Your task to perform on an android device: Empty the shopping cart on newegg.com. Image 0: 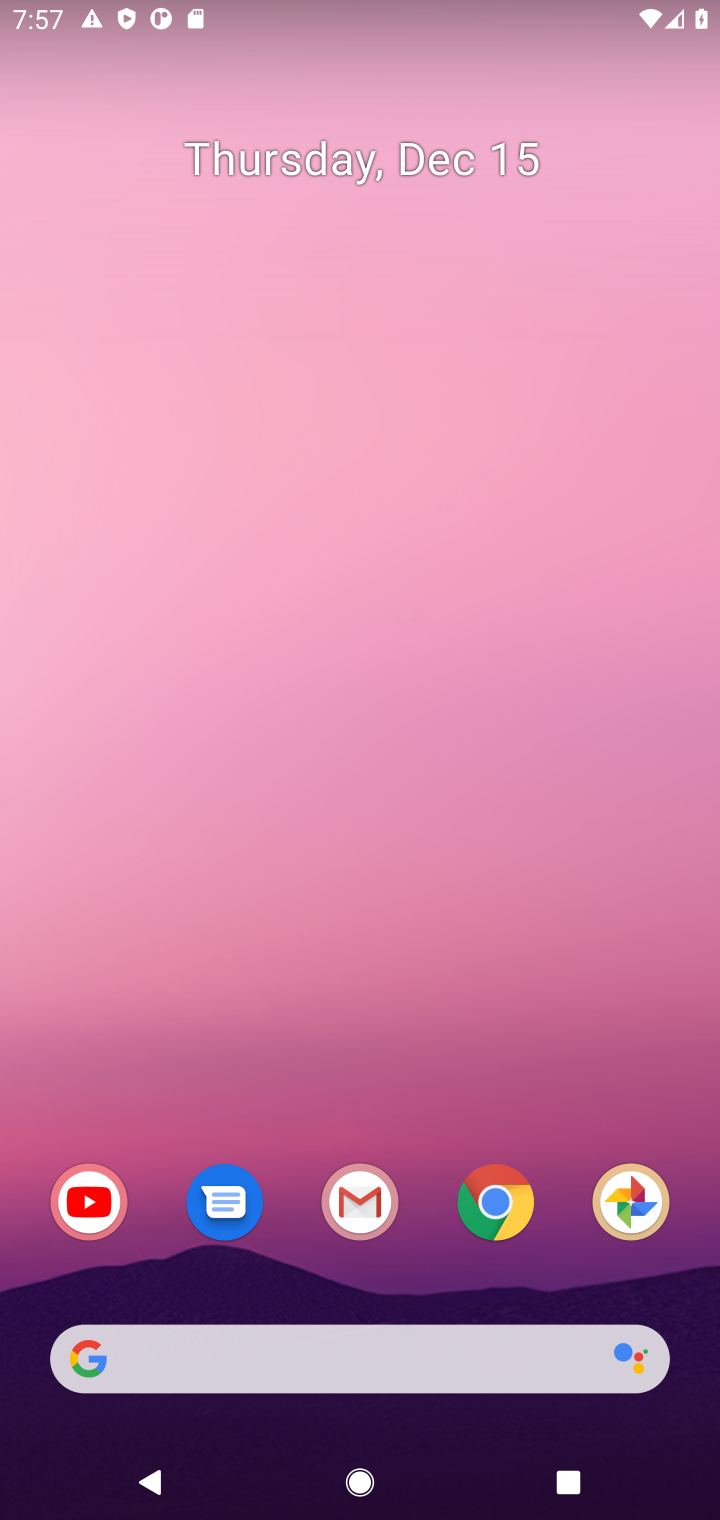
Step 0: click (499, 1202)
Your task to perform on an android device: Empty the shopping cart on newegg.com. Image 1: 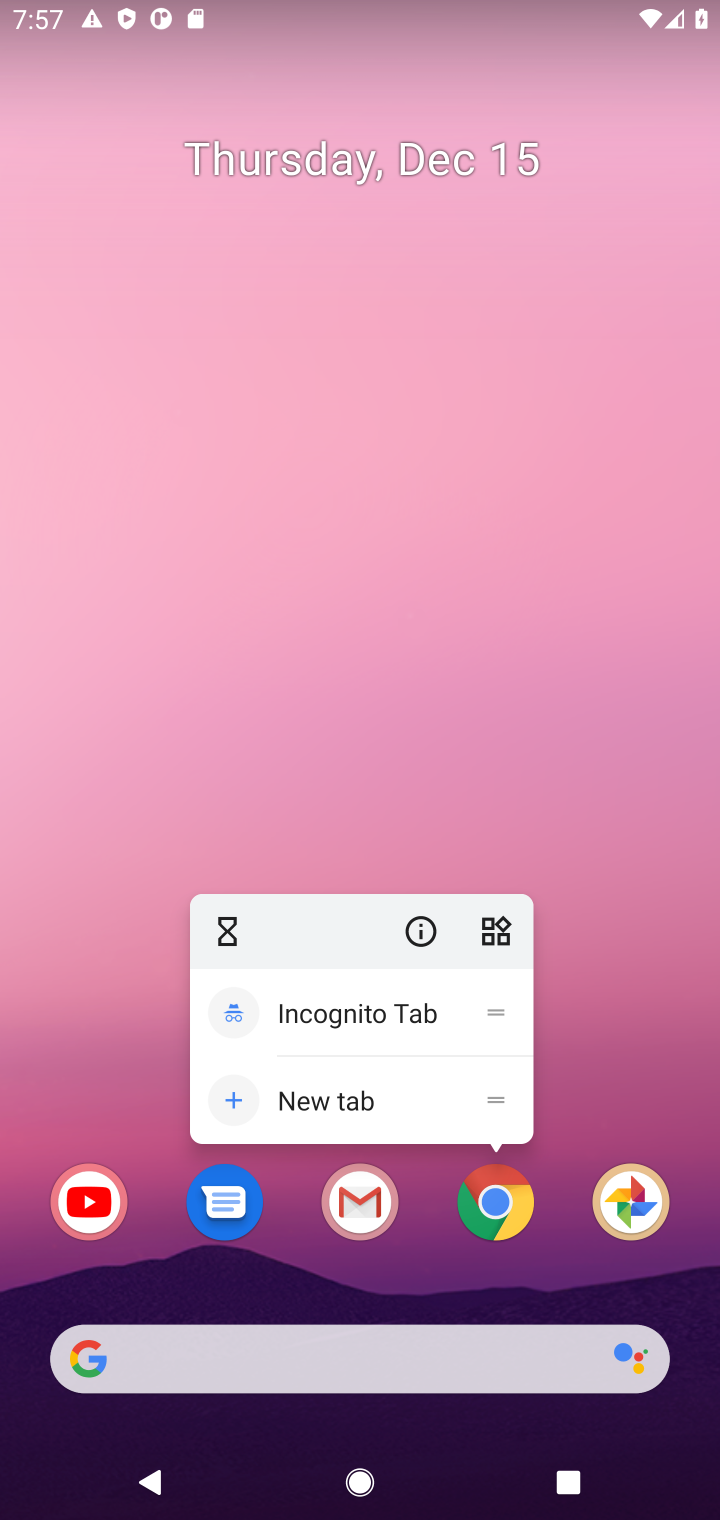
Step 1: click (499, 1202)
Your task to perform on an android device: Empty the shopping cart on newegg.com. Image 2: 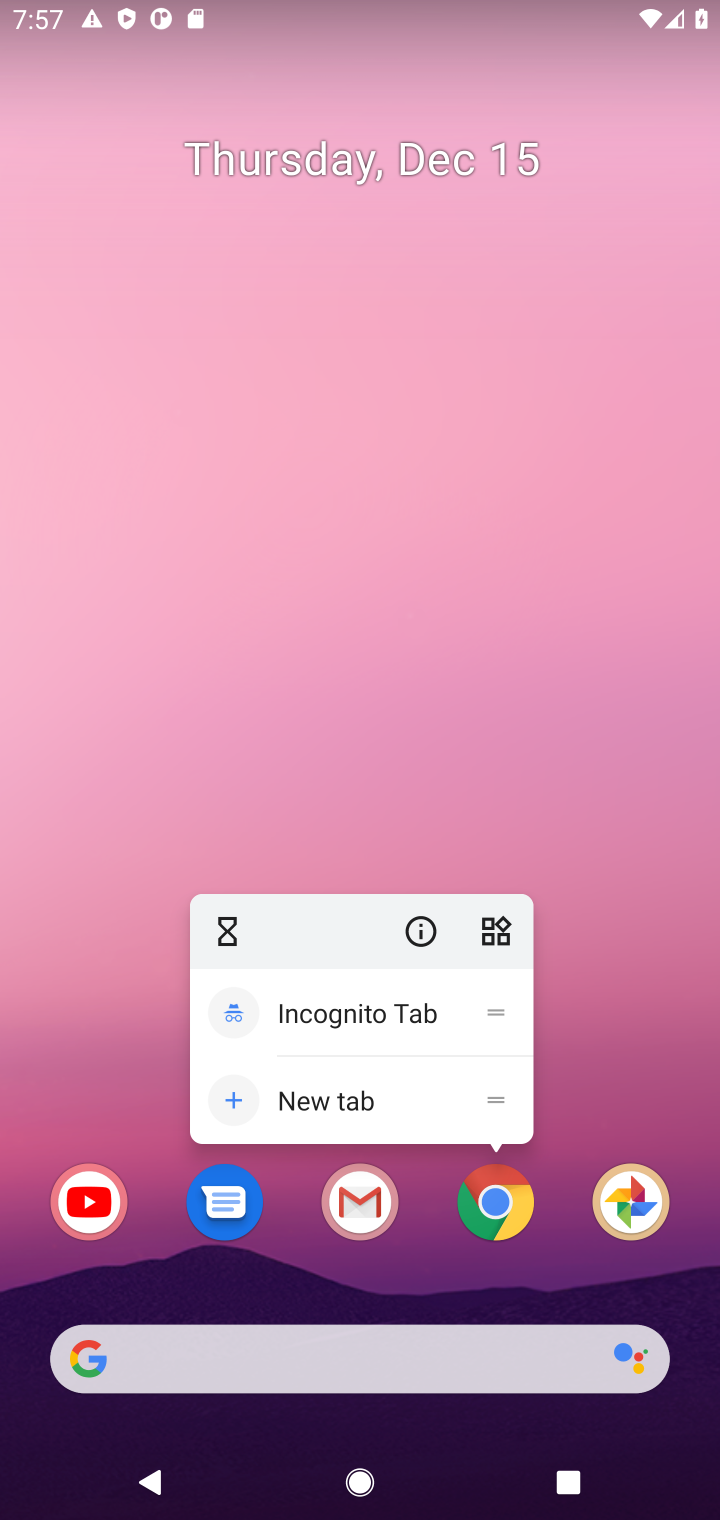
Step 2: click (499, 1202)
Your task to perform on an android device: Empty the shopping cart on newegg.com. Image 3: 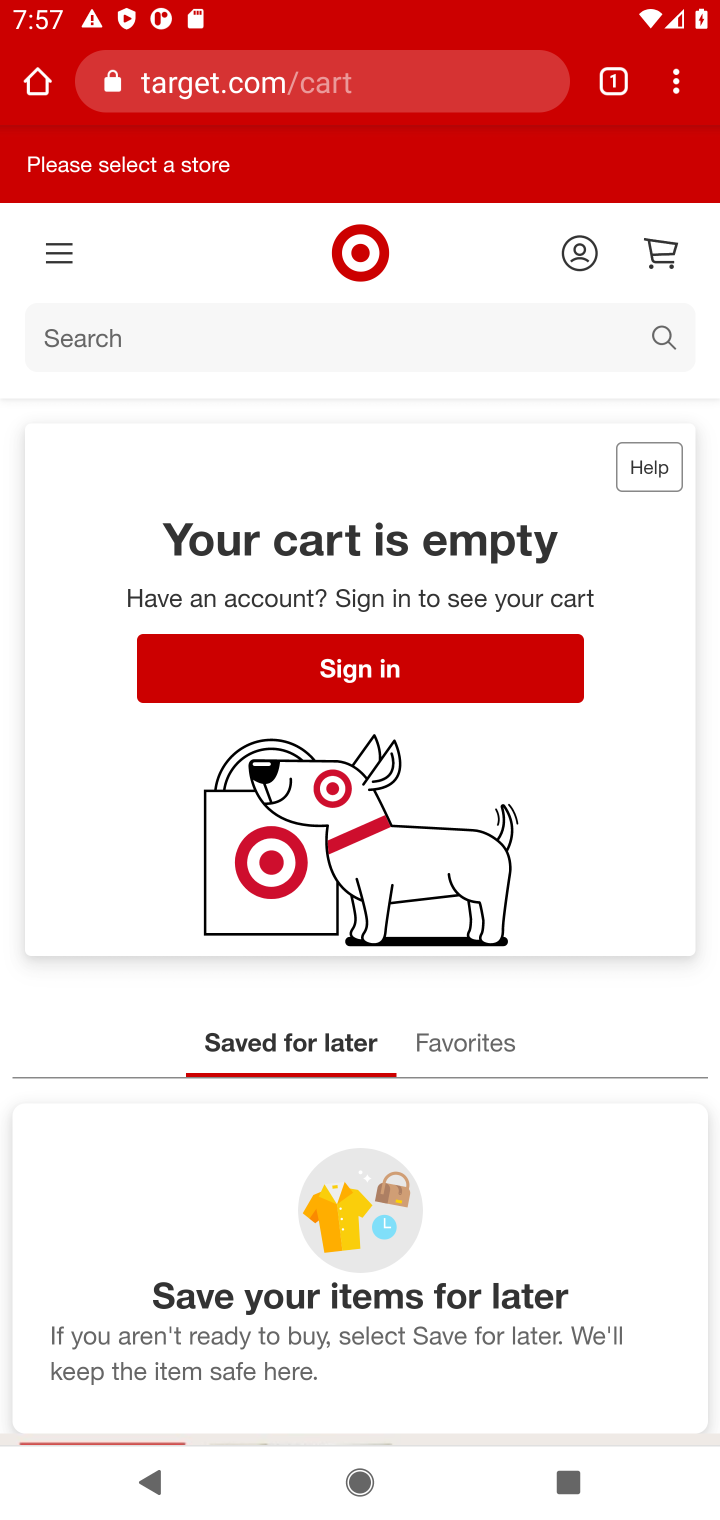
Step 3: click (280, 77)
Your task to perform on an android device: Empty the shopping cart on newegg.com. Image 4: 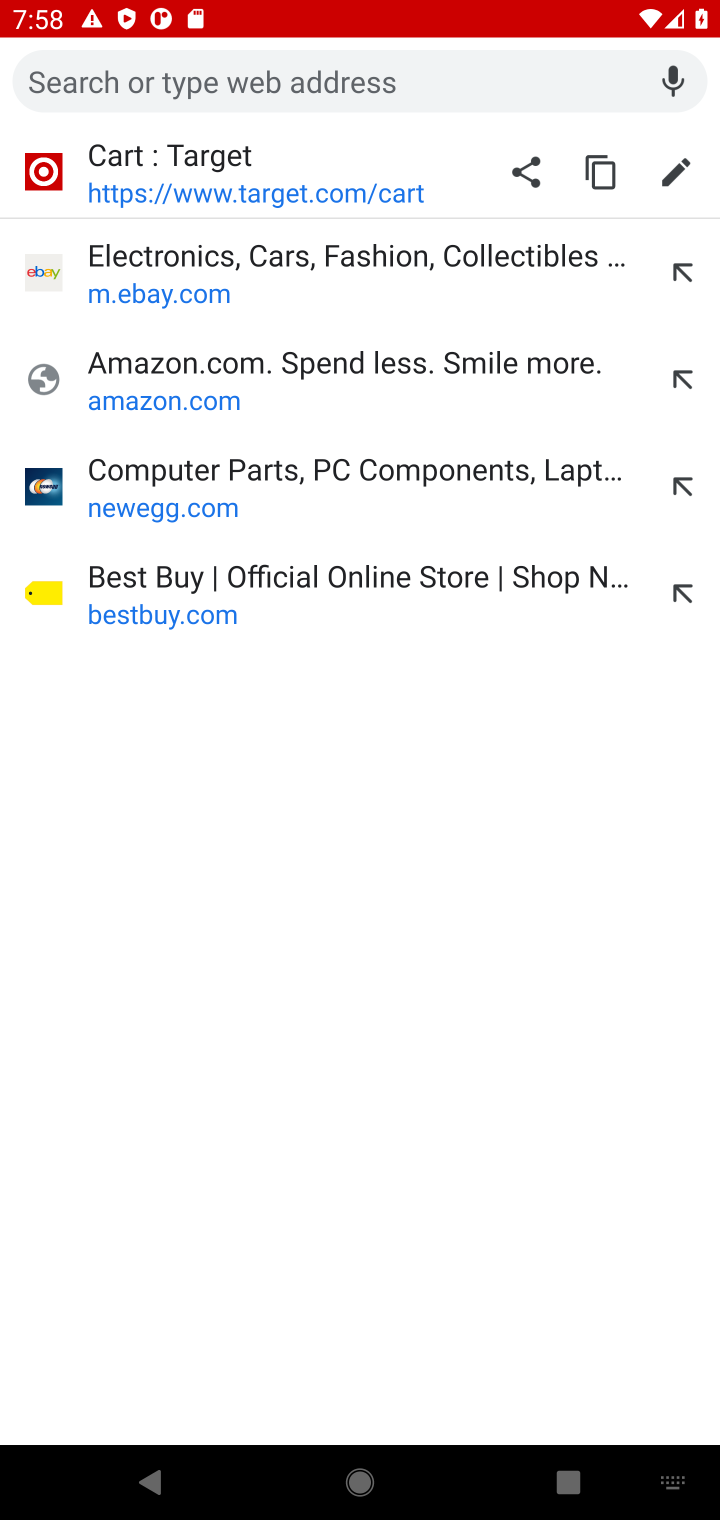
Step 4: click (165, 490)
Your task to perform on an android device: Empty the shopping cart on newegg.com. Image 5: 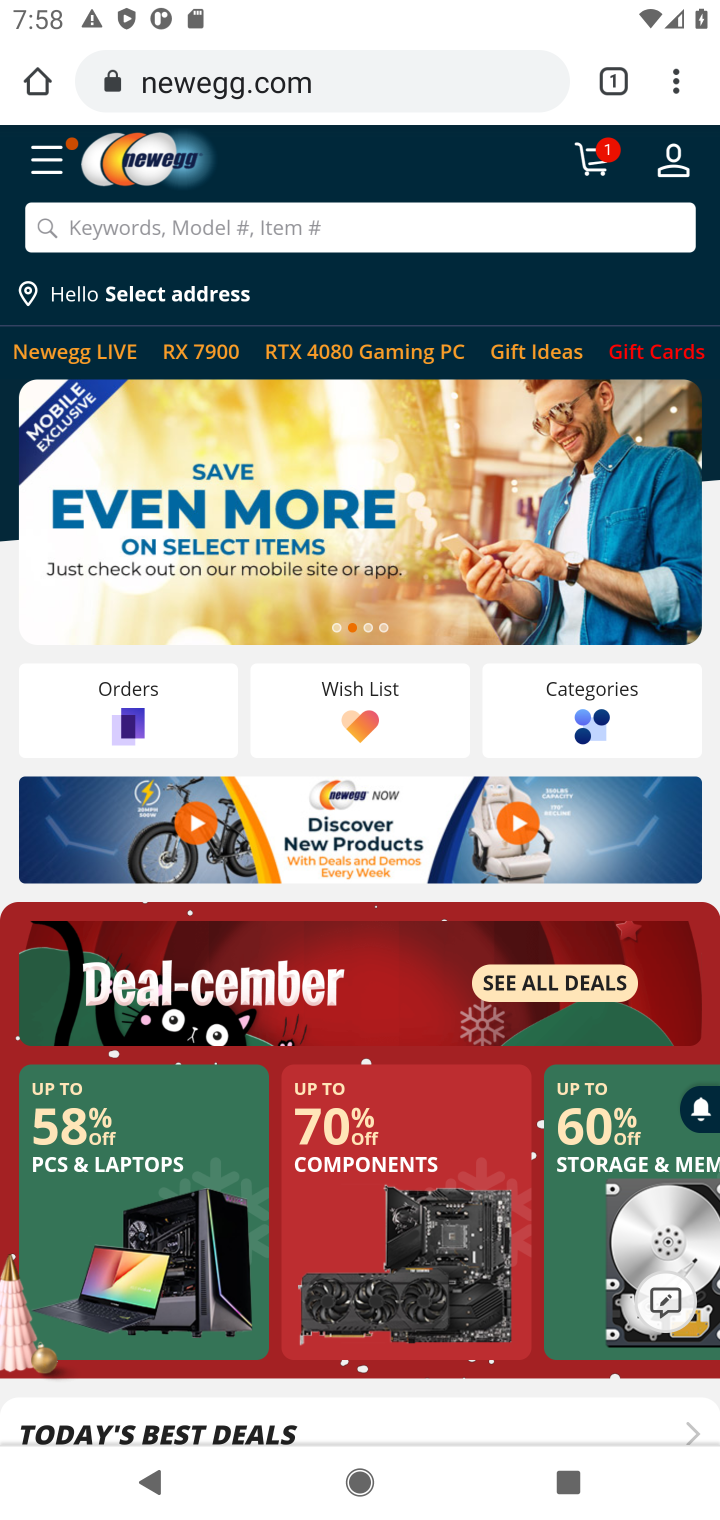
Step 5: click (600, 168)
Your task to perform on an android device: Empty the shopping cart on newegg.com. Image 6: 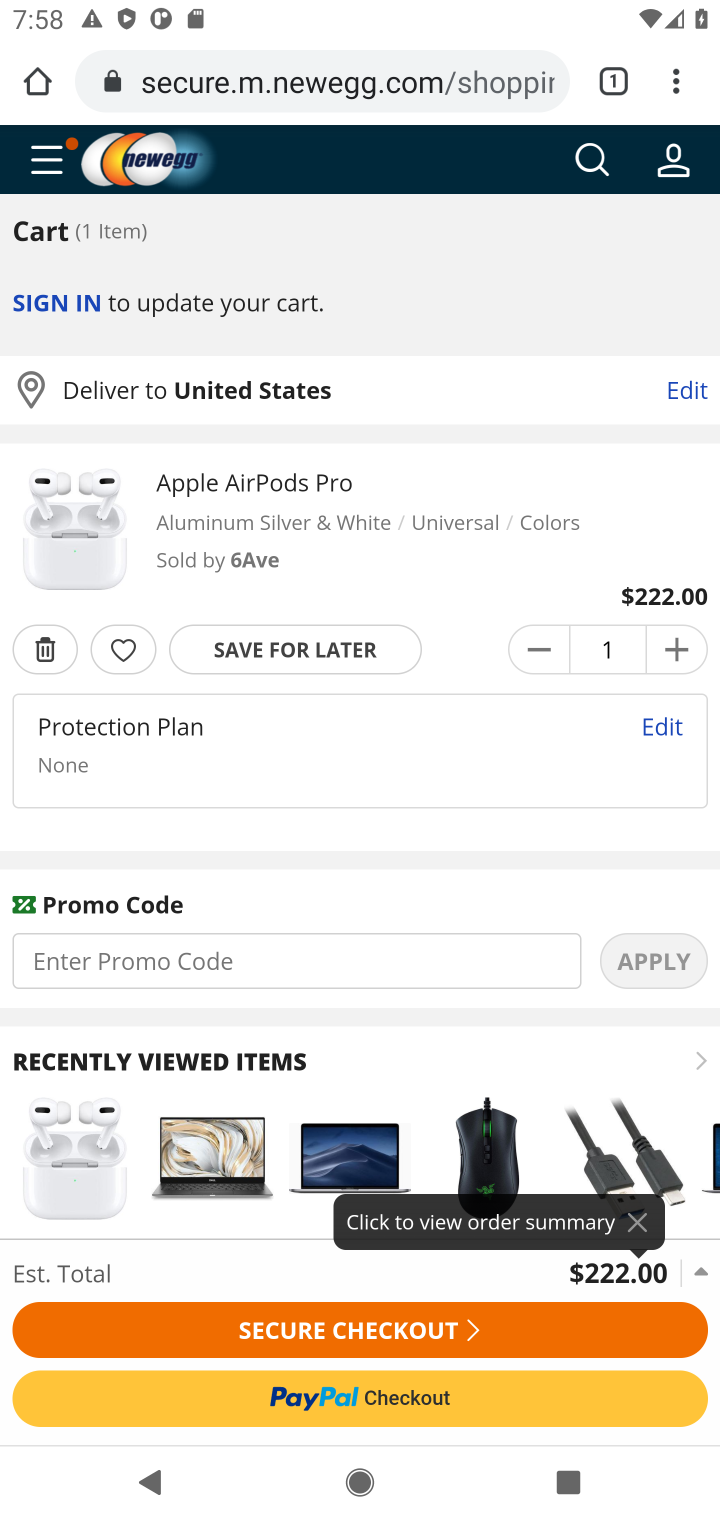
Step 6: click (44, 653)
Your task to perform on an android device: Empty the shopping cart on newegg.com. Image 7: 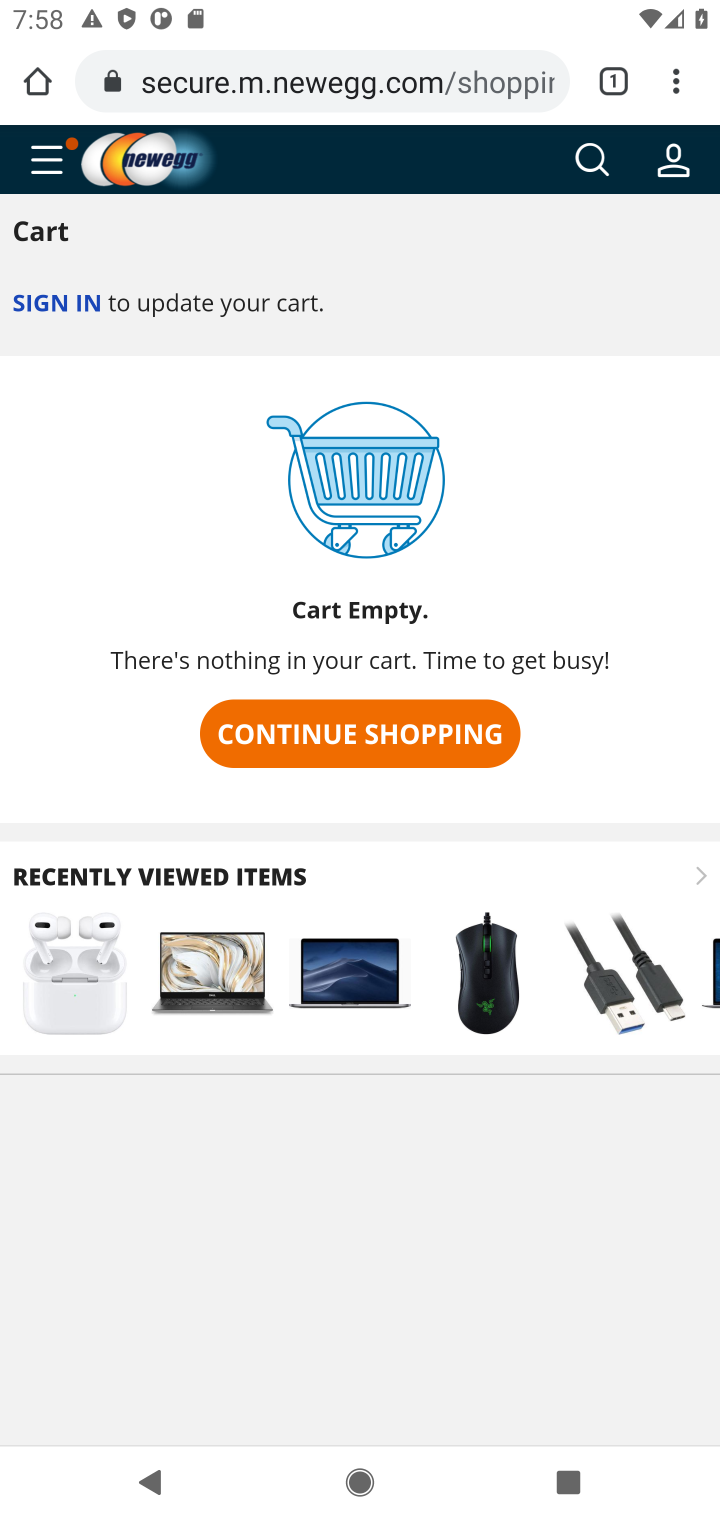
Step 7: task complete